Your task to perform on an android device: Is it going to rain tomorrow? Image 0: 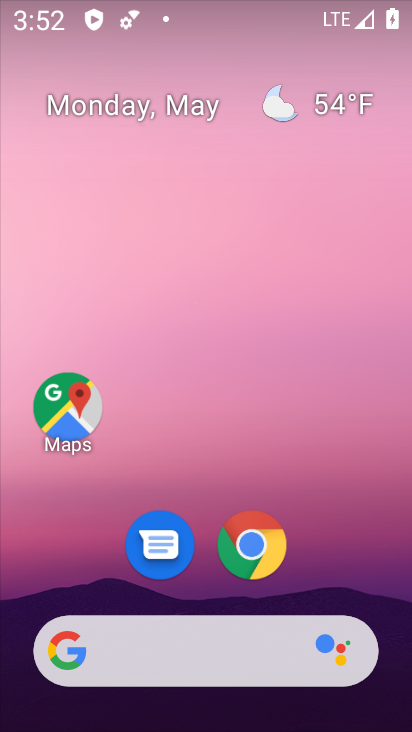
Step 0: click (342, 103)
Your task to perform on an android device: Is it going to rain tomorrow? Image 1: 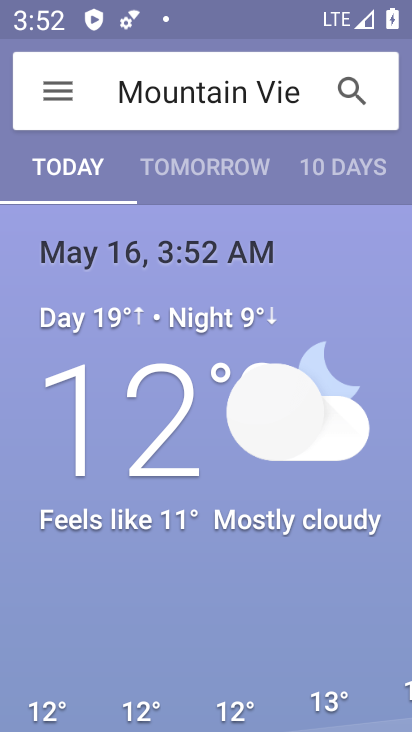
Step 1: click (203, 171)
Your task to perform on an android device: Is it going to rain tomorrow? Image 2: 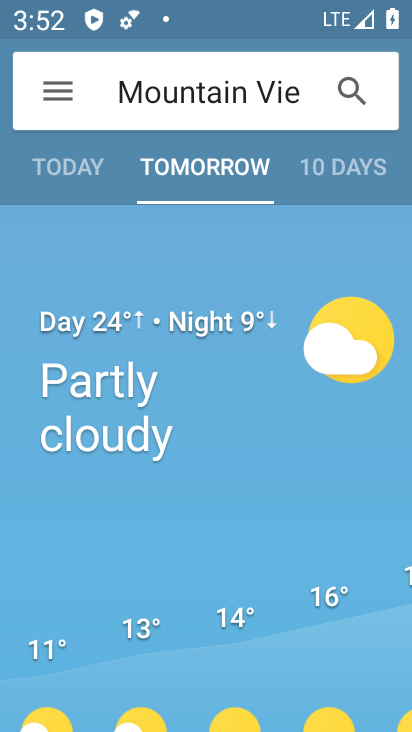
Step 2: task complete